Your task to perform on an android device: open app "Facebook" (install if not already installed) Image 0: 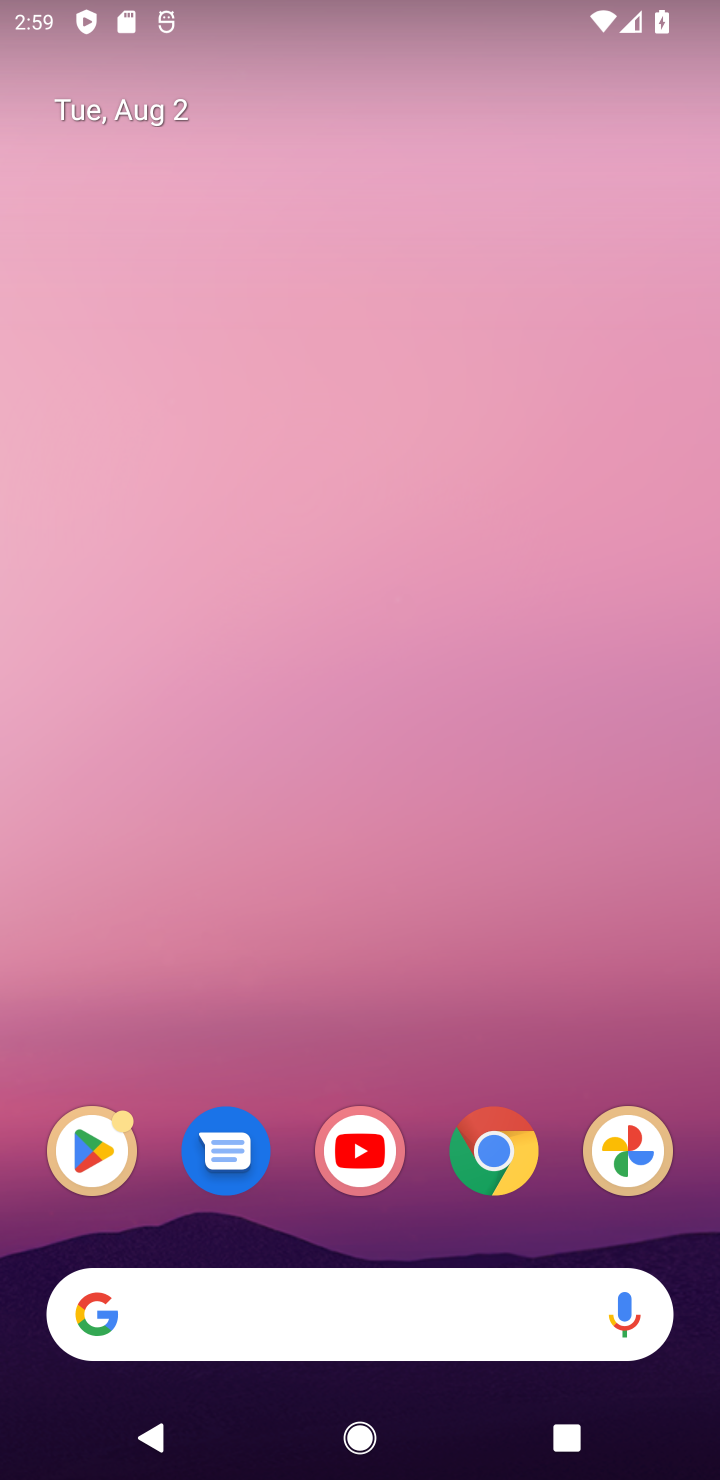
Step 0: drag from (390, 1240) to (328, 152)
Your task to perform on an android device: open app "Facebook" (install if not already installed) Image 1: 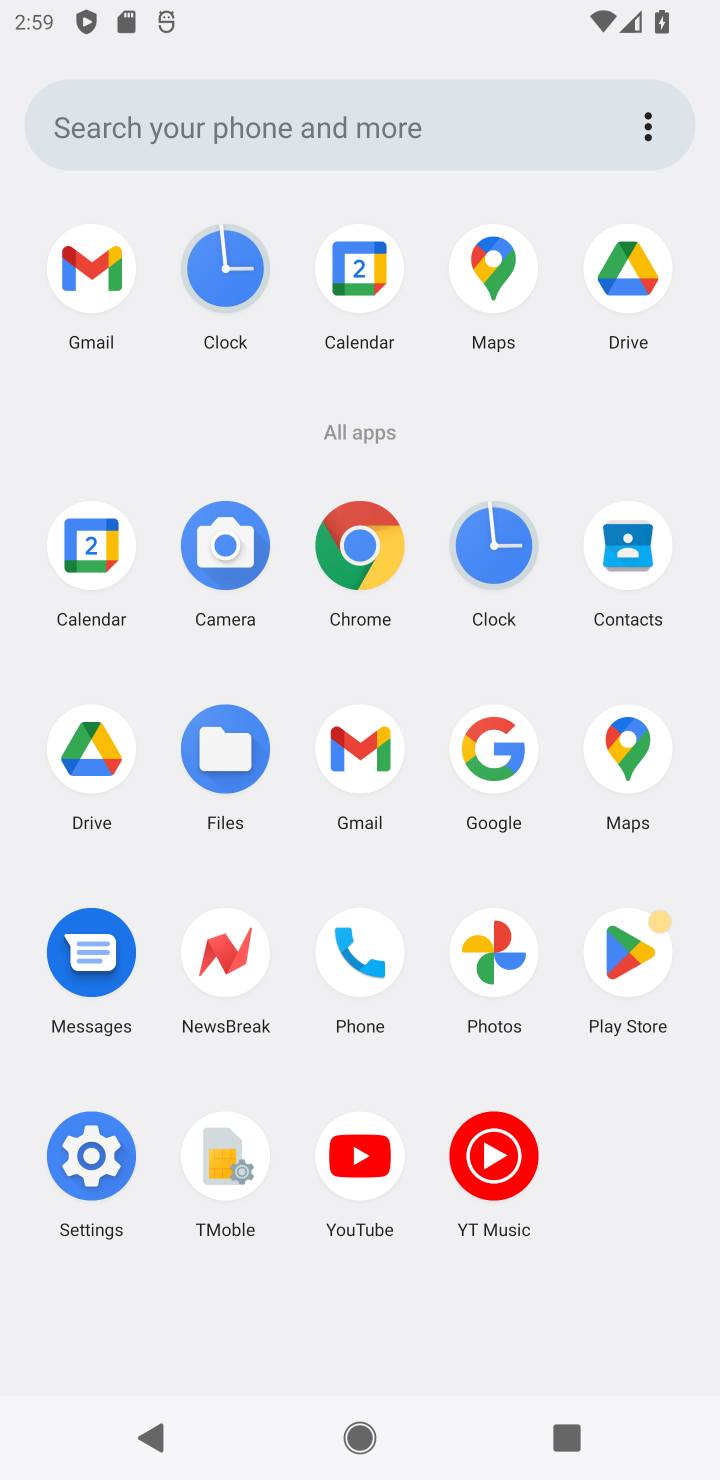
Step 1: click (627, 937)
Your task to perform on an android device: open app "Facebook" (install if not already installed) Image 2: 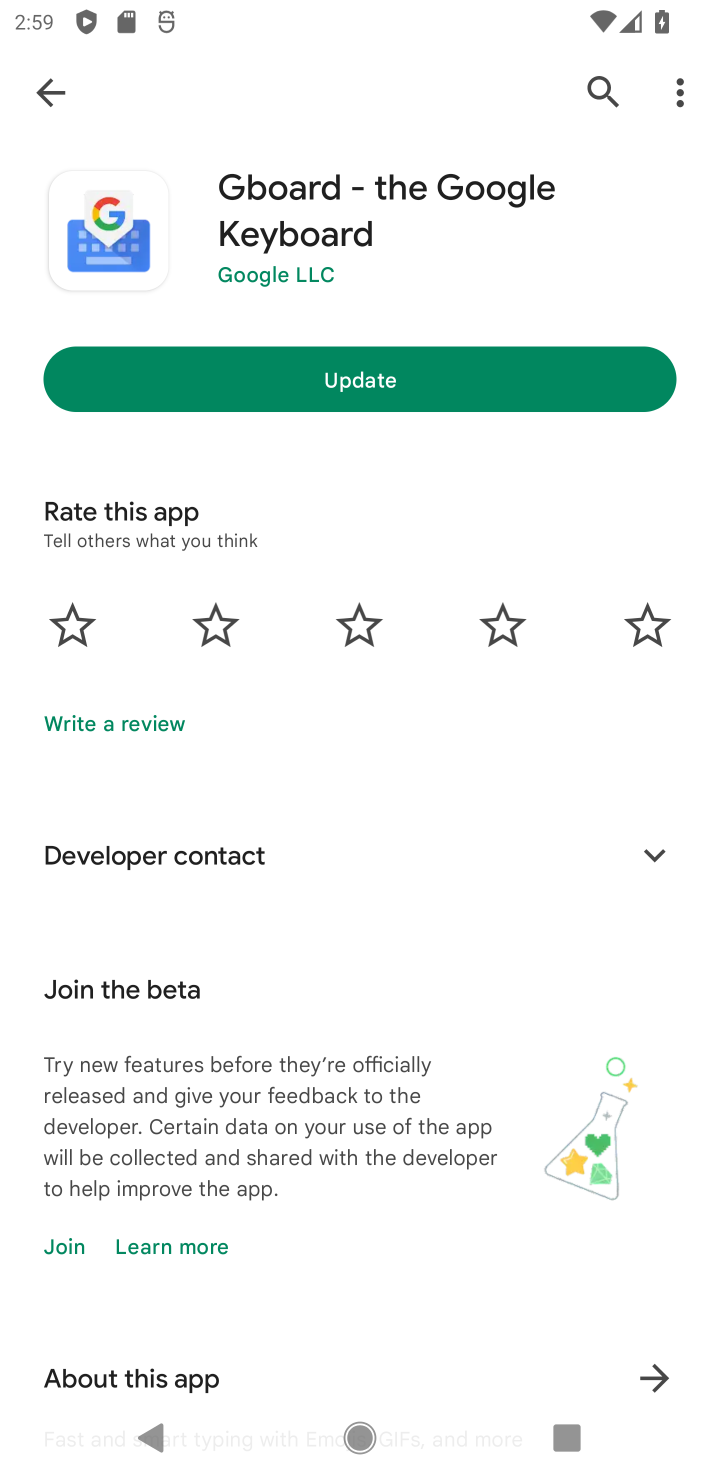
Step 2: click (598, 89)
Your task to perform on an android device: open app "Facebook" (install if not already installed) Image 3: 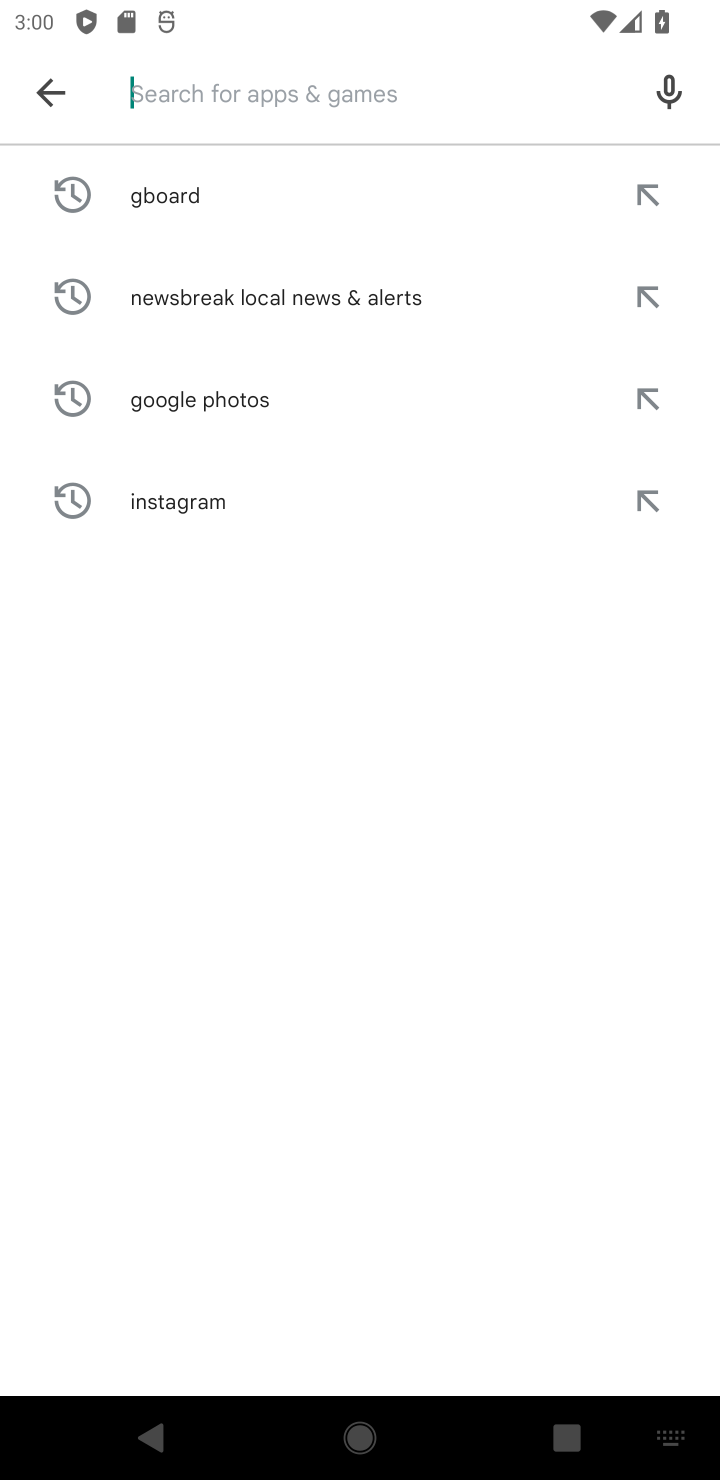
Step 3: type "Facebook"
Your task to perform on an android device: open app "Facebook" (install if not already installed) Image 4: 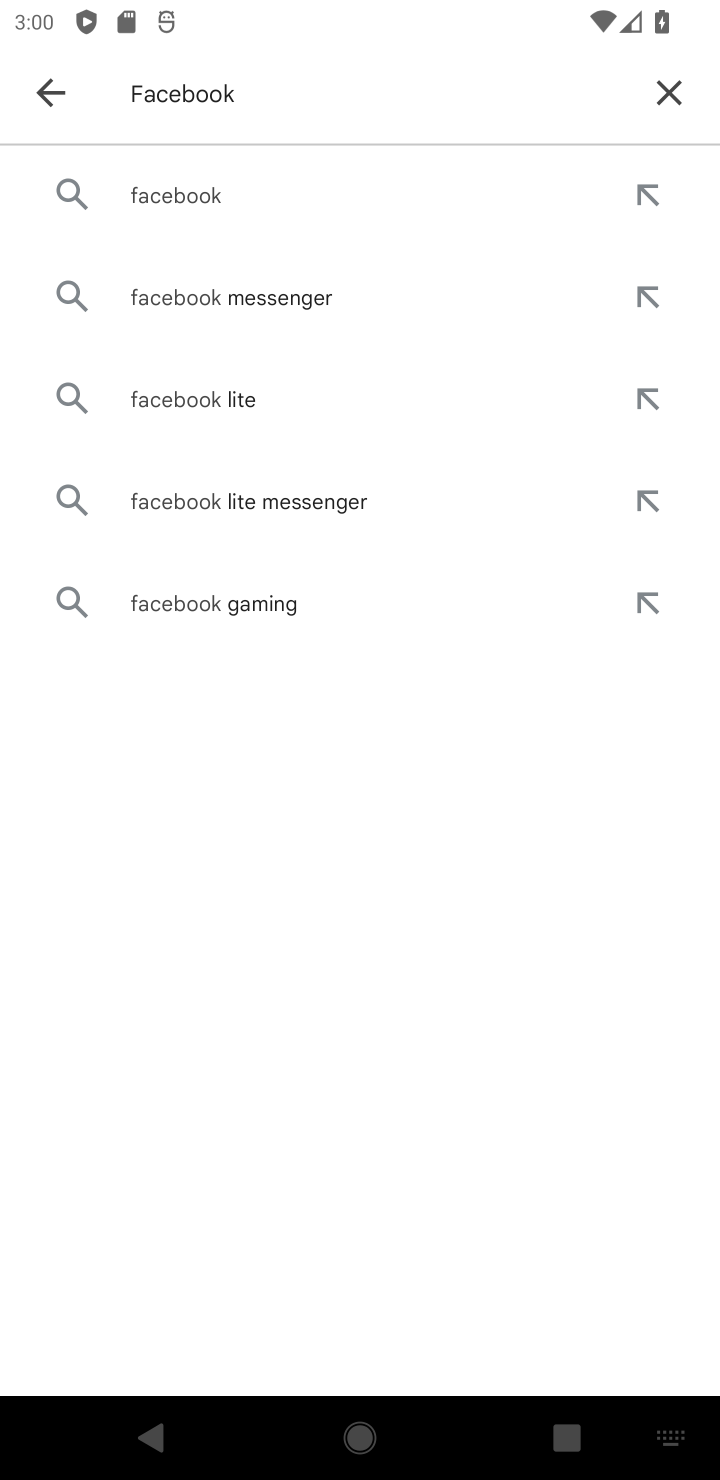
Step 4: click (166, 182)
Your task to perform on an android device: open app "Facebook" (install if not already installed) Image 5: 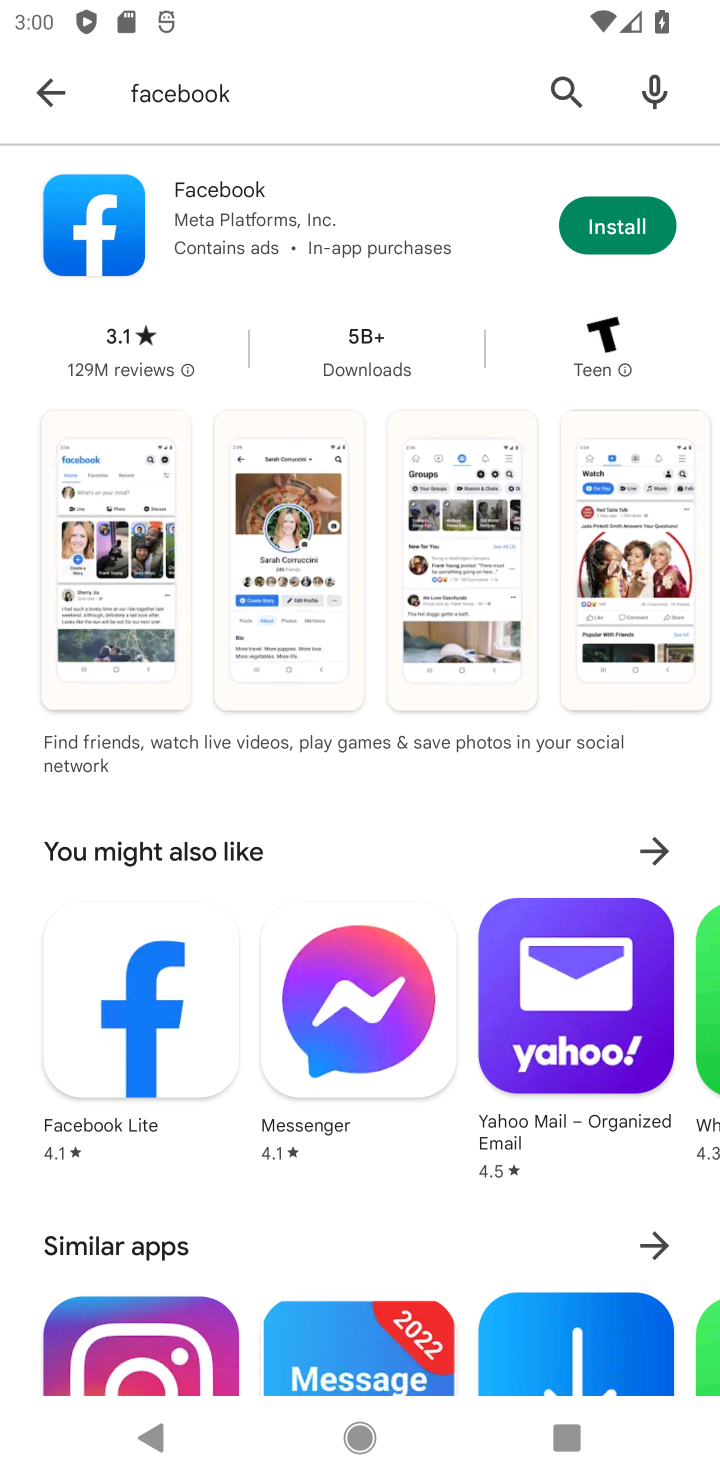
Step 5: click (624, 231)
Your task to perform on an android device: open app "Facebook" (install if not already installed) Image 6: 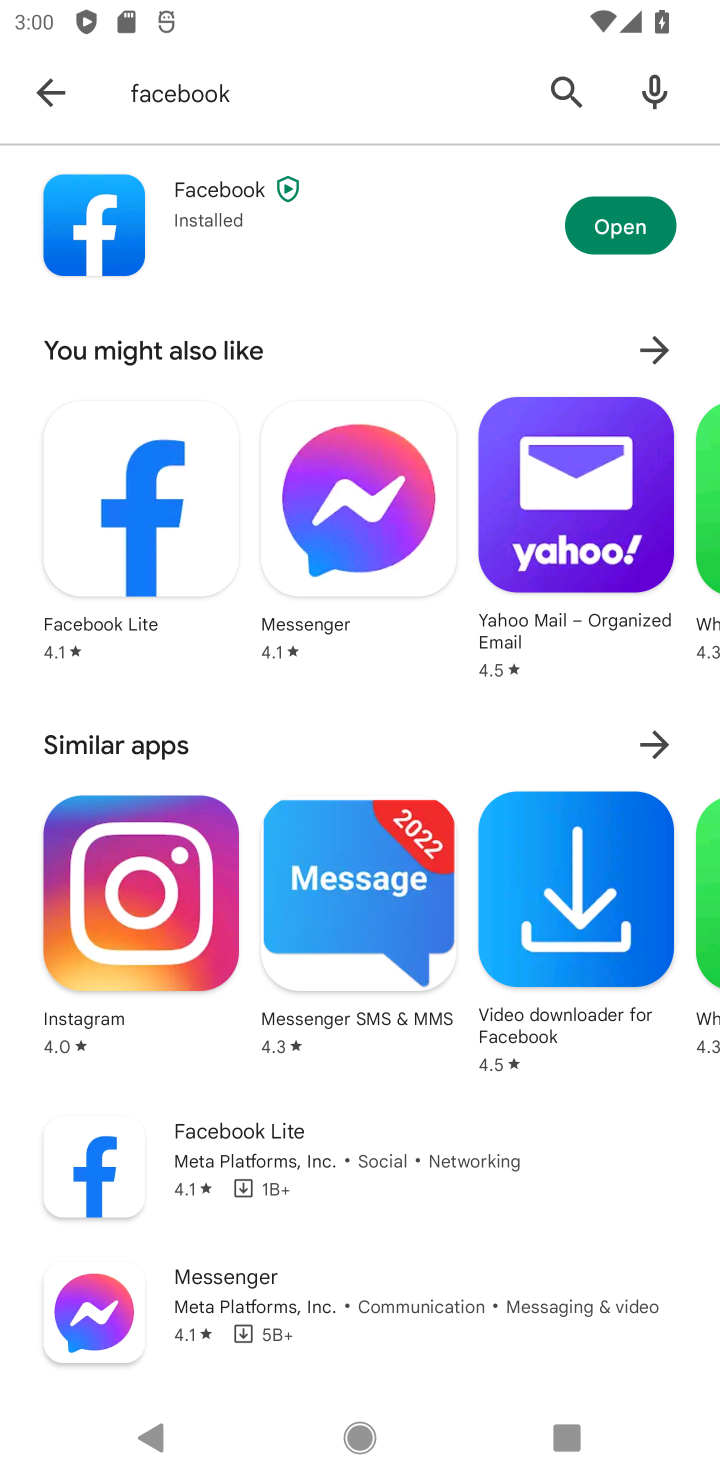
Step 6: task complete